Your task to perform on an android device: Search for pizza restaurants on Maps Image 0: 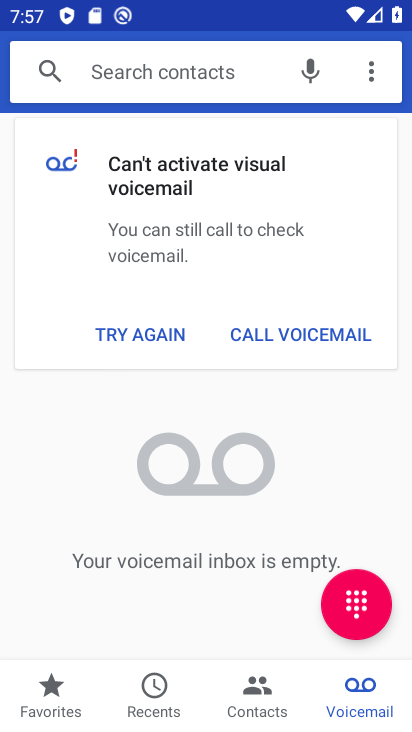
Step 0: press home button
Your task to perform on an android device: Search for pizza restaurants on Maps Image 1: 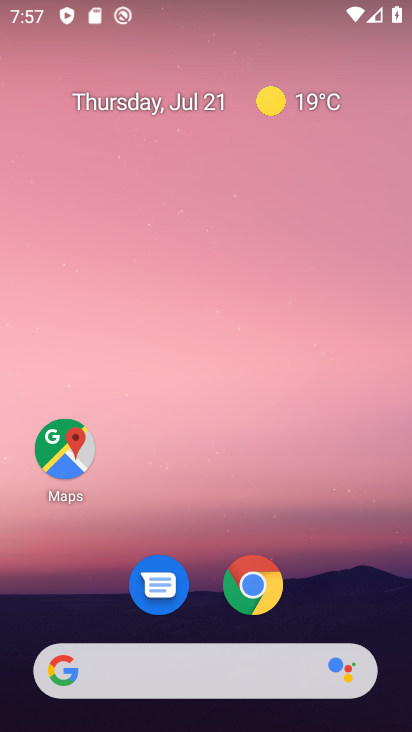
Step 1: click (65, 461)
Your task to perform on an android device: Search for pizza restaurants on Maps Image 2: 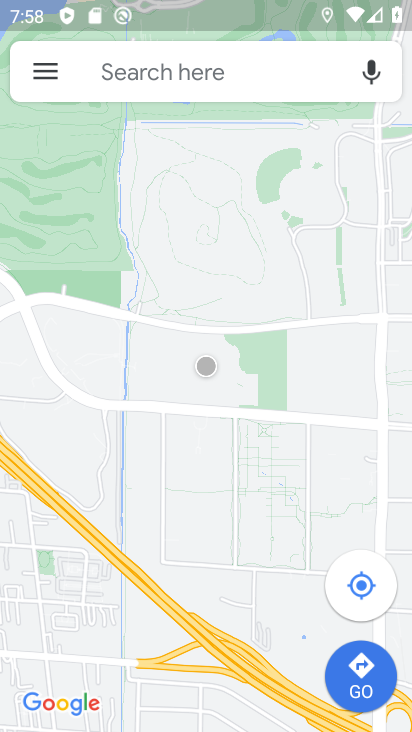
Step 2: click (148, 65)
Your task to perform on an android device: Search for pizza restaurants on Maps Image 3: 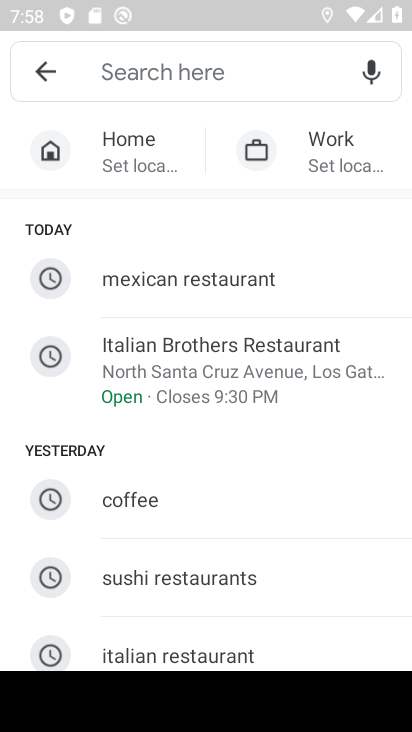
Step 3: drag from (179, 560) to (197, 225)
Your task to perform on an android device: Search for pizza restaurants on Maps Image 4: 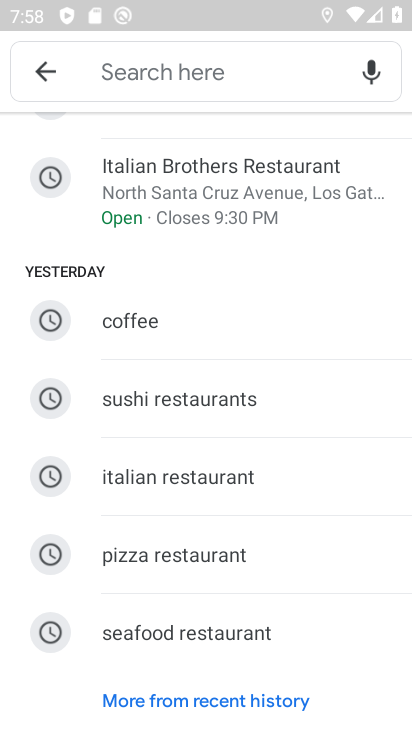
Step 4: click (202, 549)
Your task to perform on an android device: Search for pizza restaurants on Maps Image 5: 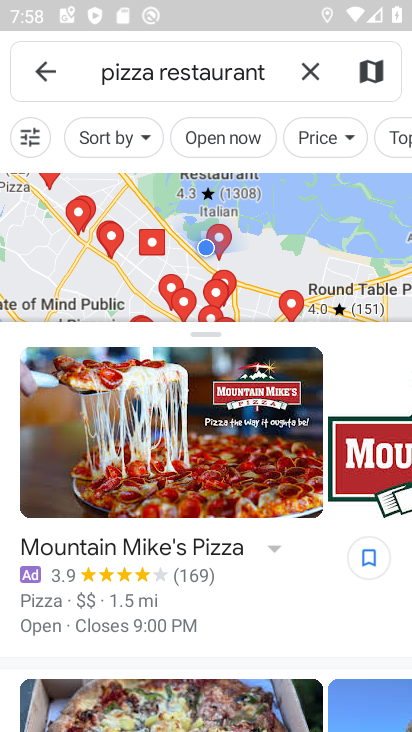
Step 5: task complete